Your task to perform on an android device: Search for a nice rug on Crate & Barrel Image 0: 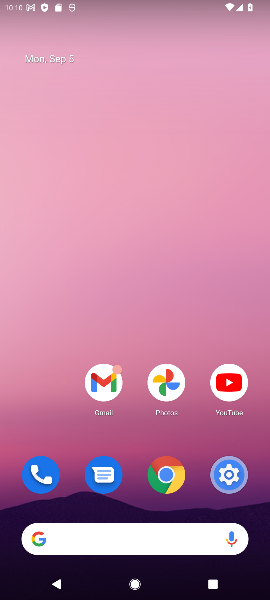
Step 0: click (172, 486)
Your task to perform on an android device: Search for a nice rug on Crate & Barrel Image 1: 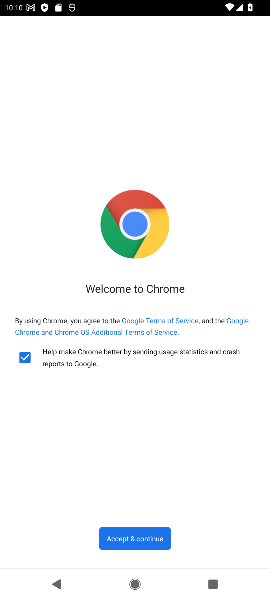
Step 1: click (148, 533)
Your task to perform on an android device: Search for a nice rug on Crate & Barrel Image 2: 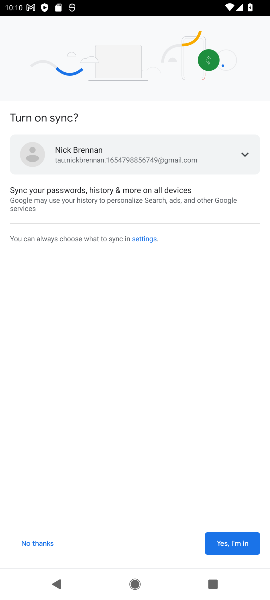
Step 2: task complete